Your task to perform on an android device: turn off notifications settings in the gmail app Image 0: 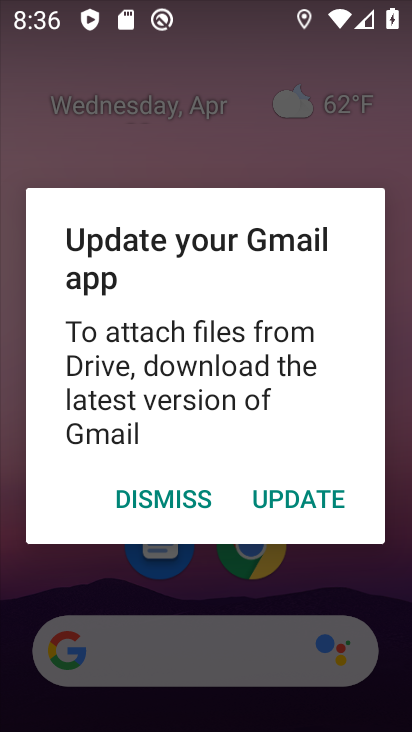
Step 0: press home button
Your task to perform on an android device: turn off notifications settings in the gmail app Image 1: 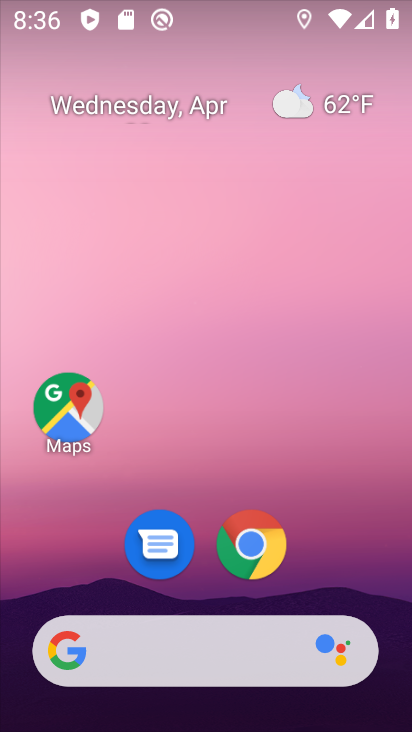
Step 1: drag from (309, 561) to (151, 156)
Your task to perform on an android device: turn off notifications settings in the gmail app Image 2: 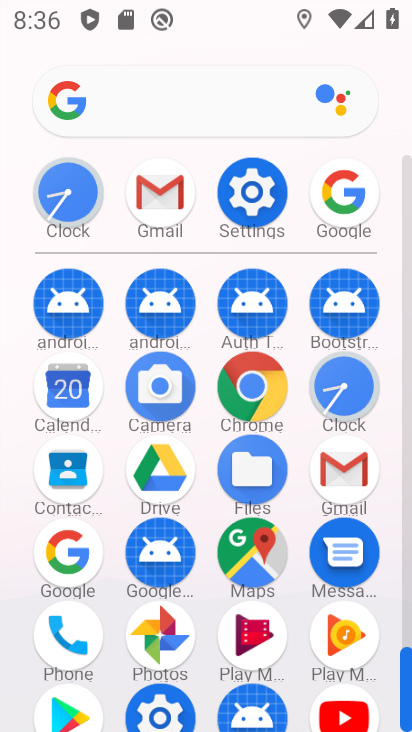
Step 2: click (341, 475)
Your task to perform on an android device: turn off notifications settings in the gmail app Image 3: 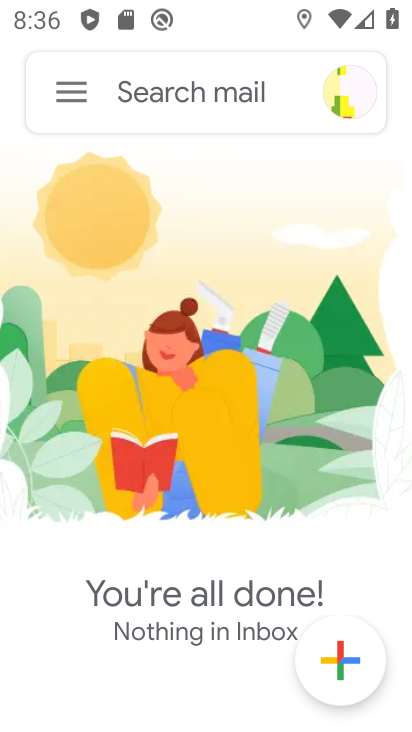
Step 3: click (77, 102)
Your task to perform on an android device: turn off notifications settings in the gmail app Image 4: 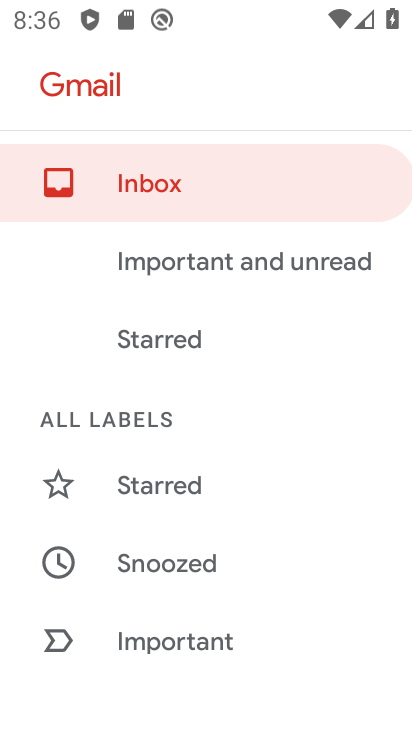
Step 4: drag from (224, 650) to (220, 186)
Your task to perform on an android device: turn off notifications settings in the gmail app Image 5: 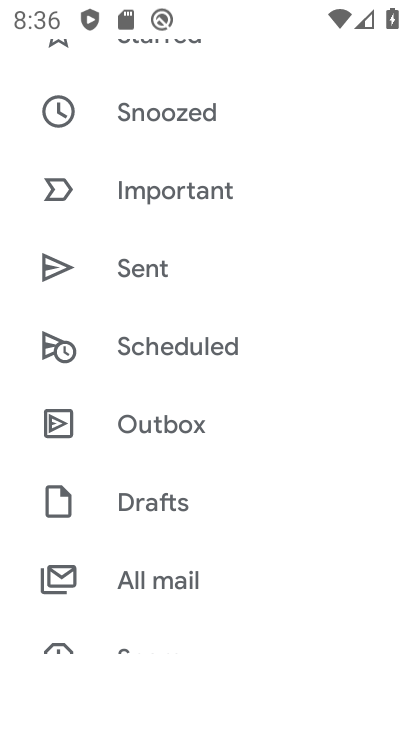
Step 5: drag from (288, 614) to (265, 209)
Your task to perform on an android device: turn off notifications settings in the gmail app Image 6: 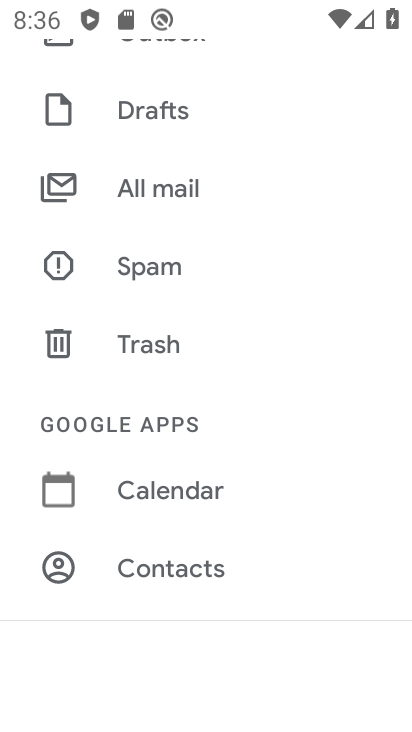
Step 6: drag from (272, 622) to (278, 344)
Your task to perform on an android device: turn off notifications settings in the gmail app Image 7: 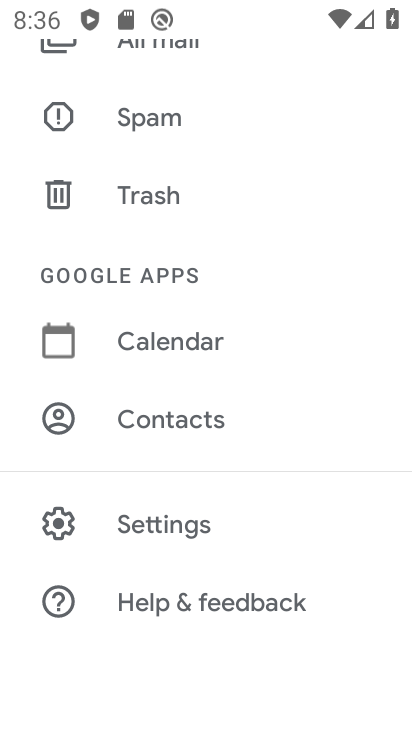
Step 7: click (128, 519)
Your task to perform on an android device: turn off notifications settings in the gmail app Image 8: 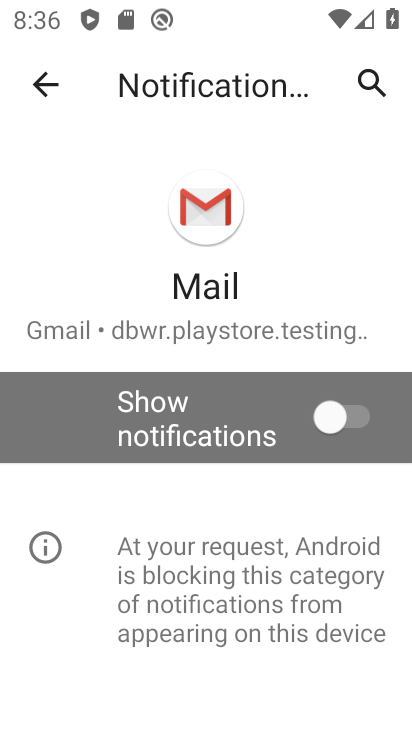
Step 8: task complete